Your task to perform on an android device: visit the assistant section in the google photos Image 0: 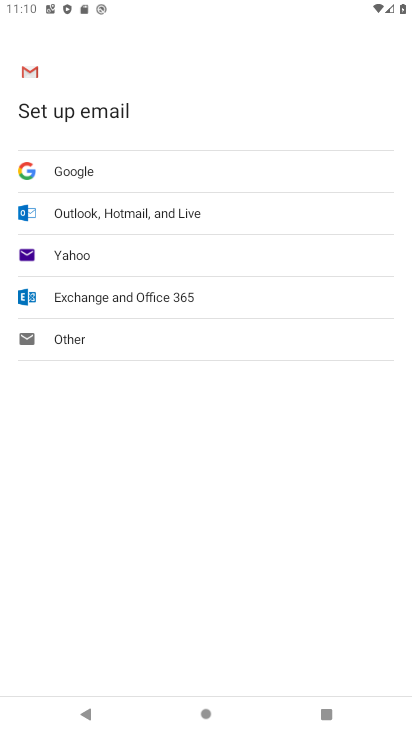
Step 0: press home button
Your task to perform on an android device: visit the assistant section in the google photos Image 1: 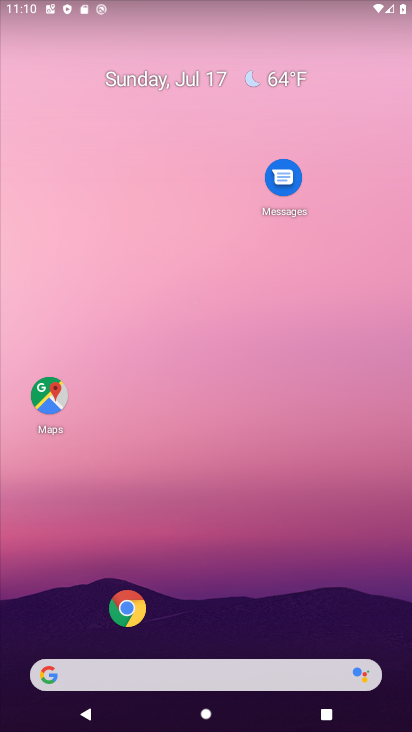
Step 1: drag from (11, 688) to (264, 162)
Your task to perform on an android device: visit the assistant section in the google photos Image 2: 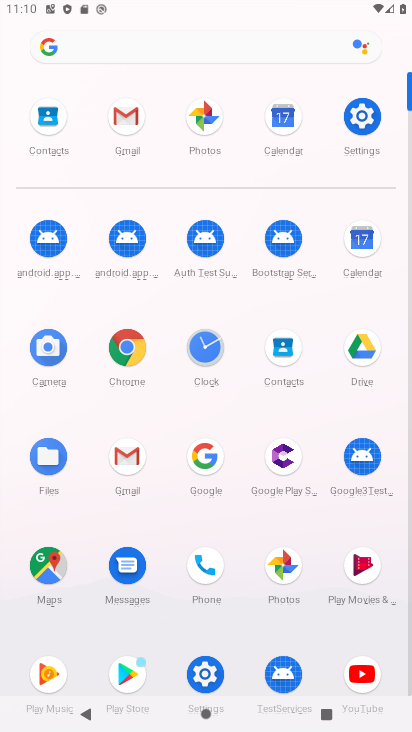
Step 2: click (280, 564)
Your task to perform on an android device: visit the assistant section in the google photos Image 3: 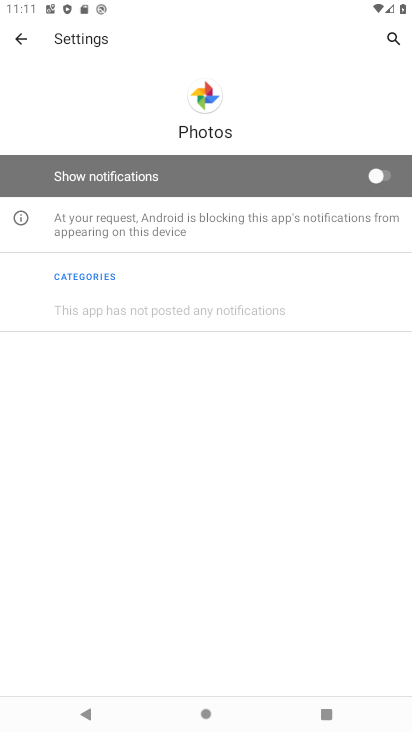
Step 3: click (18, 38)
Your task to perform on an android device: visit the assistant section in the google photos Image 4: 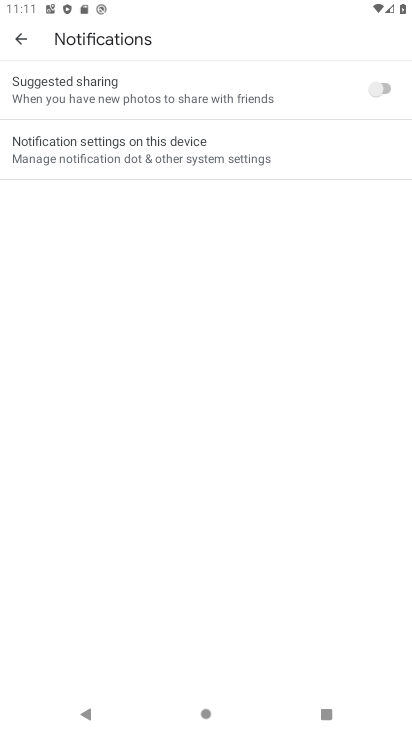
Step 4: click (18, 38)
Your task to perform on an android device: visit the assistant section in the google photos Image 5: 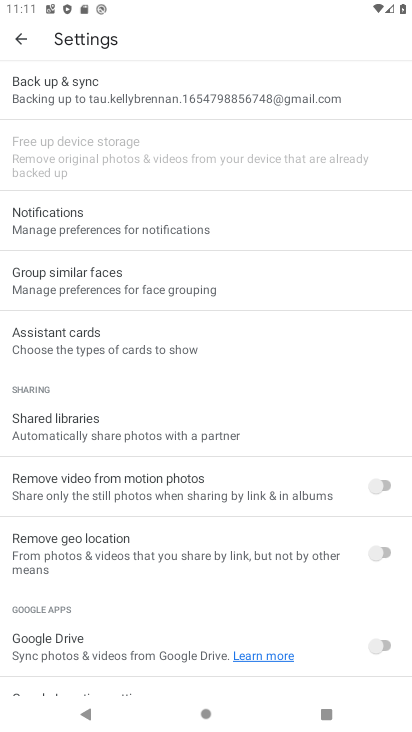
Step 5: click (16, 28)
Your task to perform on an android device: visit the assistant section in the google photos Image 6: 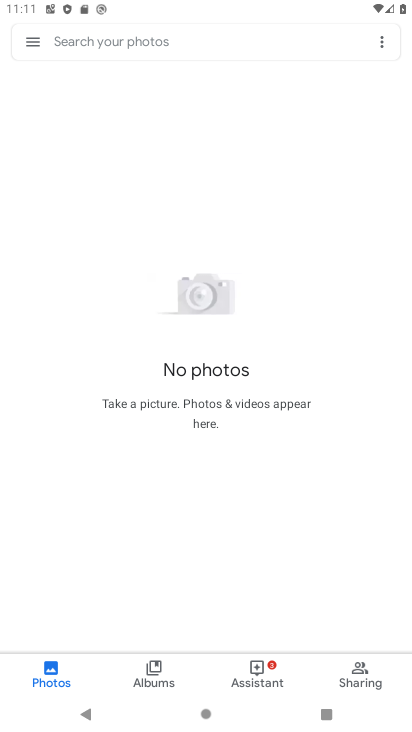
Step 6: click (246, 688)
Your task to perform on an android device: visit the assistant section in the google photos Image 7: 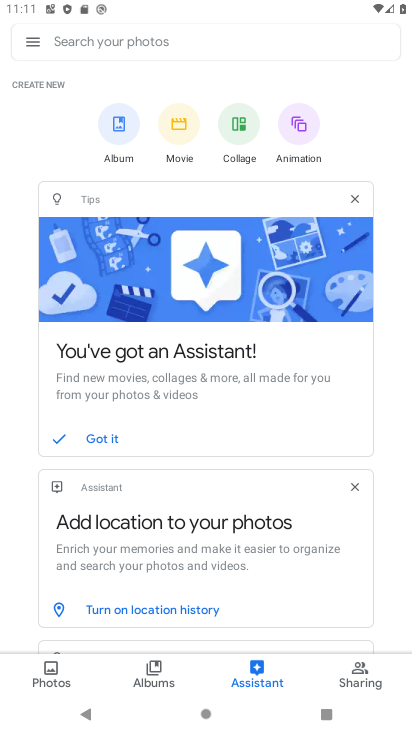
Step 7: task complete